Your task to perform on an android device: turn on translation in the chrome app Image 0: 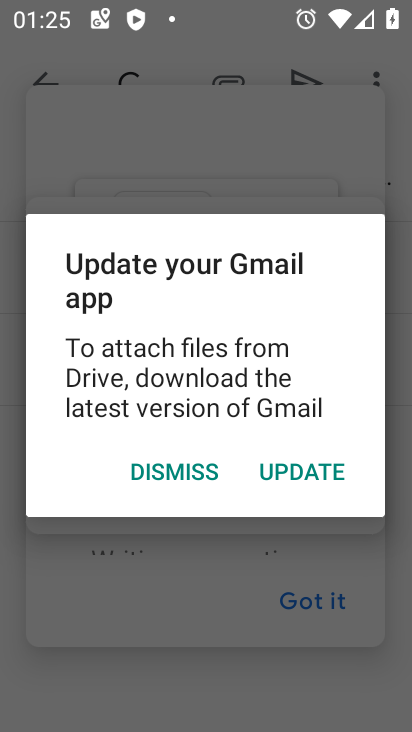
Step 0: press home button
Your task to perform on an android device: turn on translation in the chrome app Image 1: 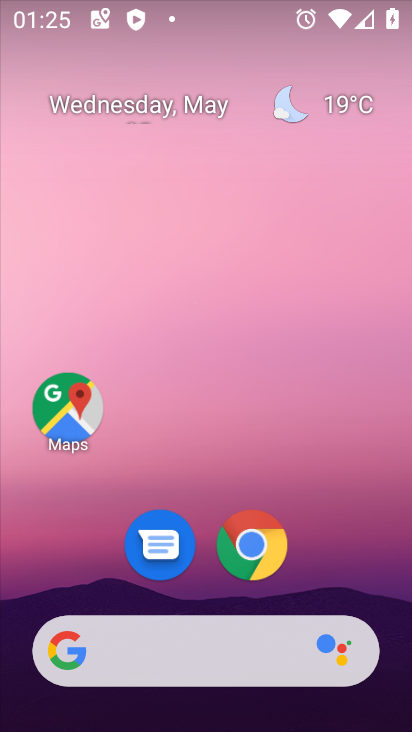
Step 1: drag from (349, 538) to (325, 134)
Your task to perform on an android device: turn on translation in the chrome app Image 2: 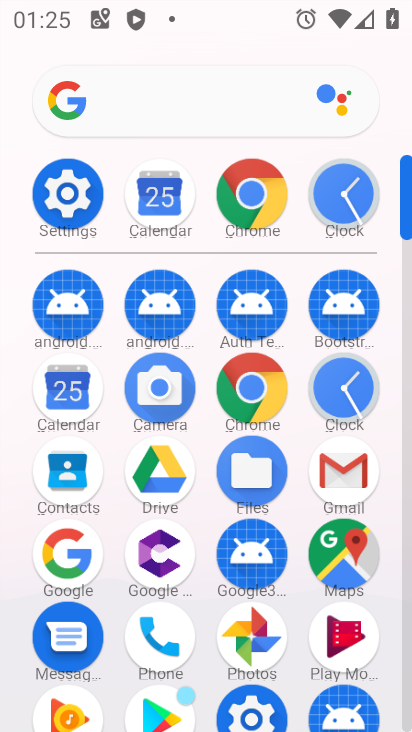
Step 2: click (239, 381)
Your task to perform on an android device: turn on translation in the chrome app Image 3: 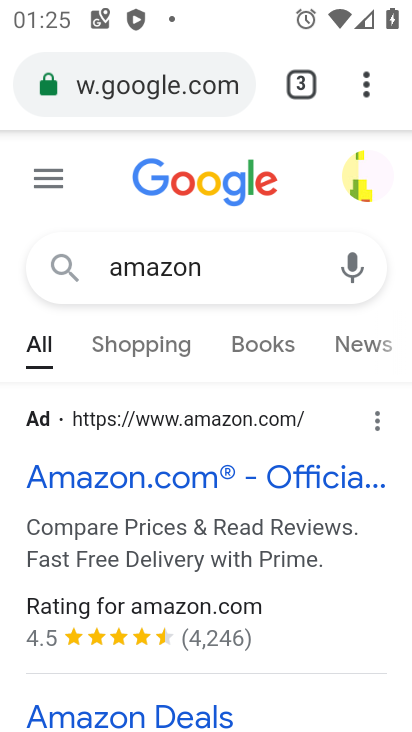
Step 3: drag from (362, 70) to (183, 607)
Your task to perform on an android device: turn on translation in the chrome app Image 4: 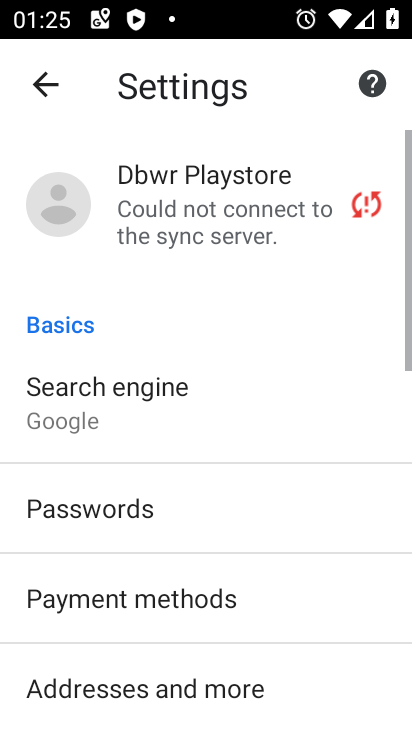
Step 4: drag from (183, 607) to (292, 28)
Your task to perform on an android device: turn on translation in the chrome app Image 5: 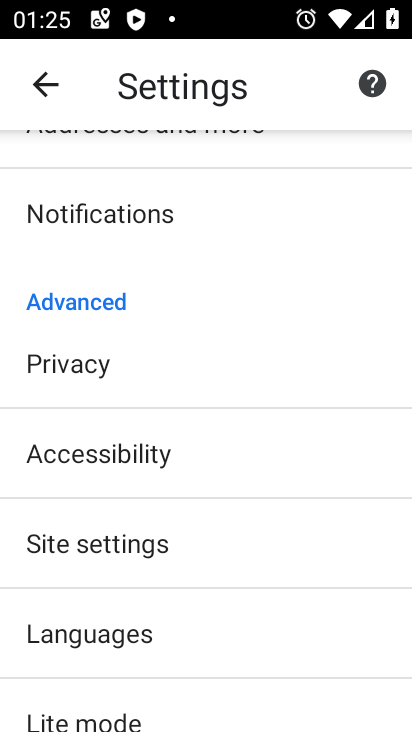
Step 5: click (133, 634)
Your task to perform on an android device: turn on translation in the chrome app Image 6: 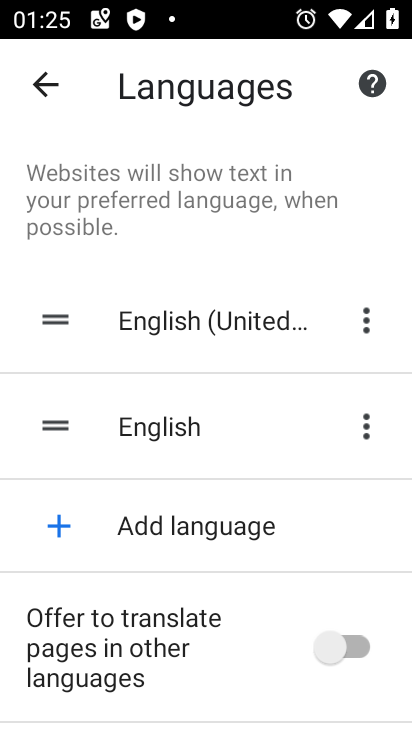
Step 6: click (344, 629)
Your task to perform on an android device: turn on translation in the chrome app Image 7: 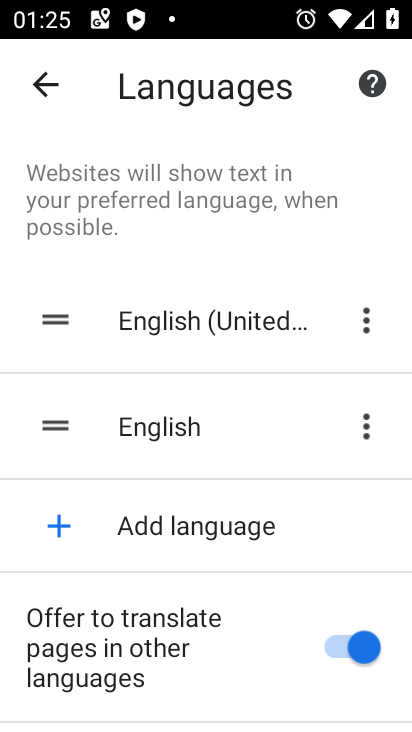
Step 7: task complete